Your task to perform on an android device: all mails in gmail Image 0: 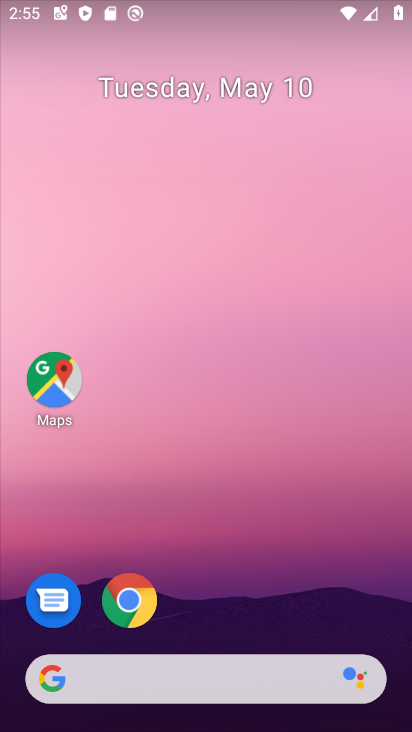
Step 0: drag from (221, 547) to (213, 130)
Your task to perform on an android device: all mails in gmail Image 1: 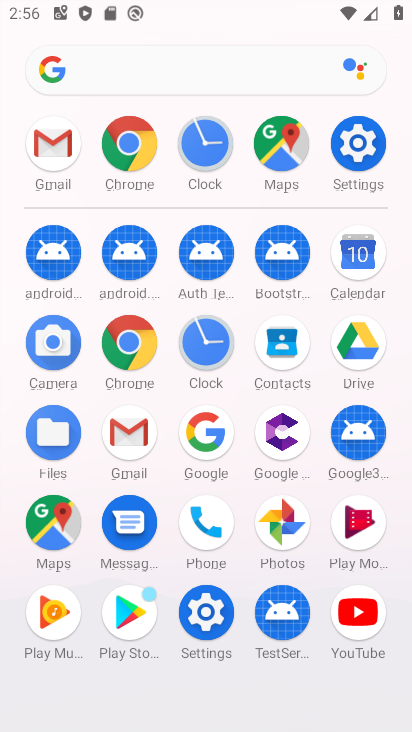
Step 1: click (130, 447)
Your task to perform on an android device: all mails in gmail Image 2: 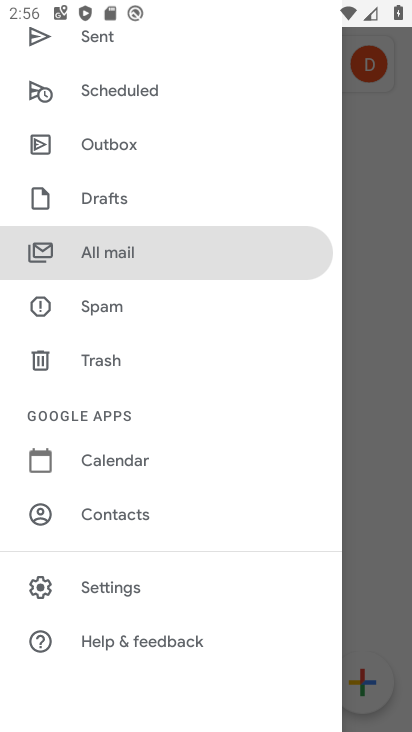
Step 2: click (167, 250)
Your task to perform on an android device: all mails in gmail Image 3: 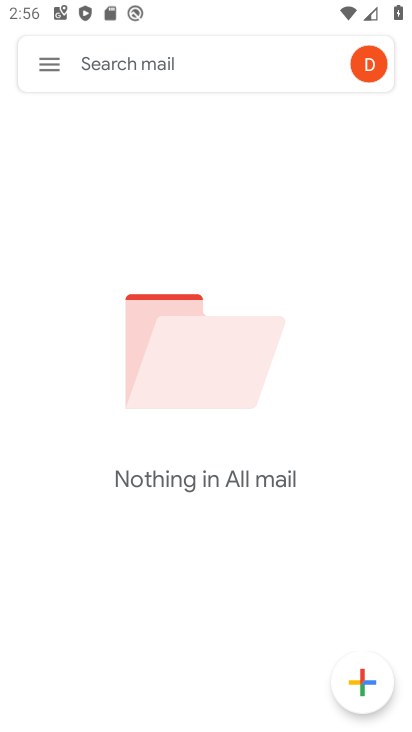
Step 3: task complete